Your task to perform on an android device: turn on bluetooth scan Image 0: 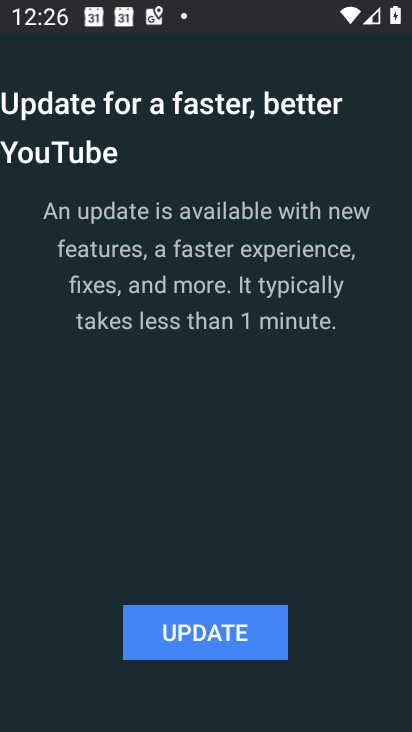
Step 0: press home button
Your task to perform on an android device: turn on bluetooth scan Image 1: 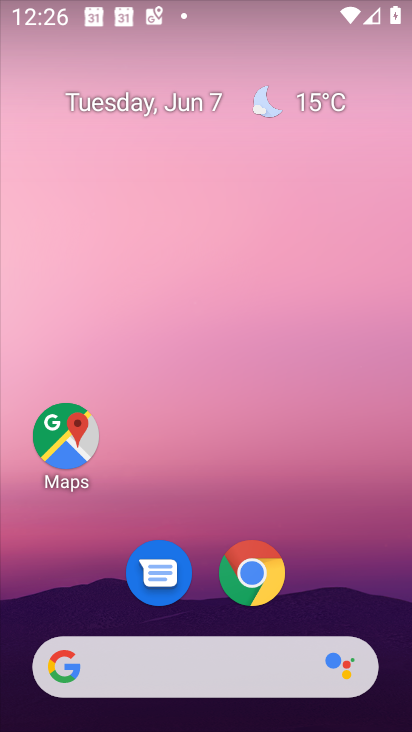
Step 1: drag from (355, 577) to (325, 128)
Your task to perform on an android device: turn on bluetooth scan Image 2: 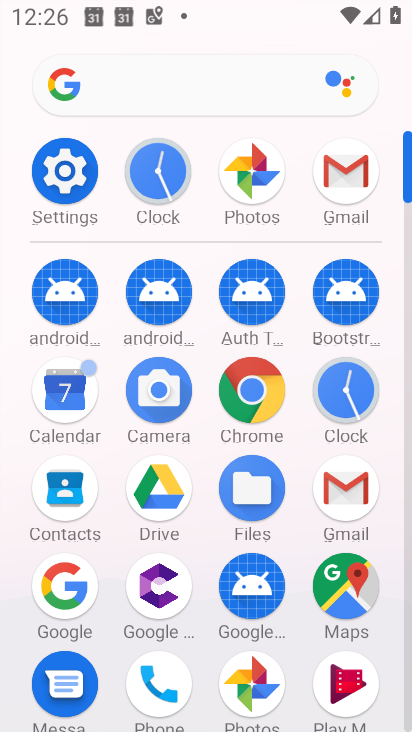
Step 2: click (74, 164)
Your task to perform on an android device: turn on bluetooth scan Image 3: 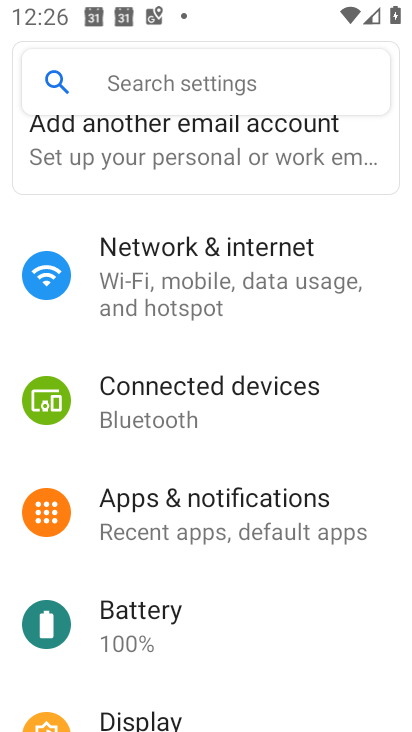
Step 3: drag from (308, 670) to (286, 226)
Your task to perform on an android device: turn on bluetooth scan Image 4: 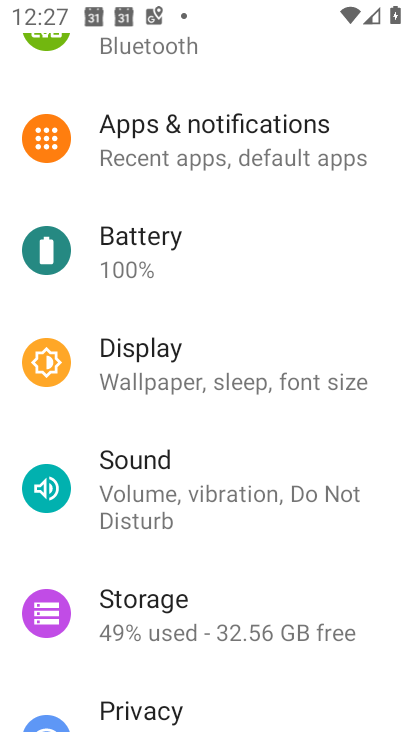
Step 4: drag from (229, 671) to (255, 250)
Your task to perform on an android device: turn on bluetooth scan Image 5: 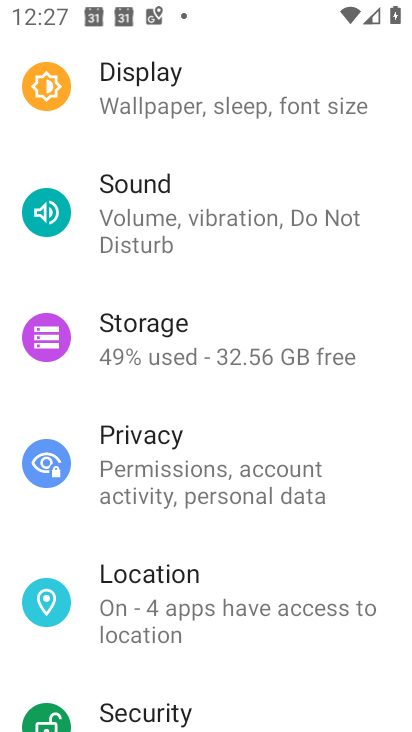
Step 5: click (223, 602)
Your task to perform on an android device: turn on bluetooth scan Image 6: 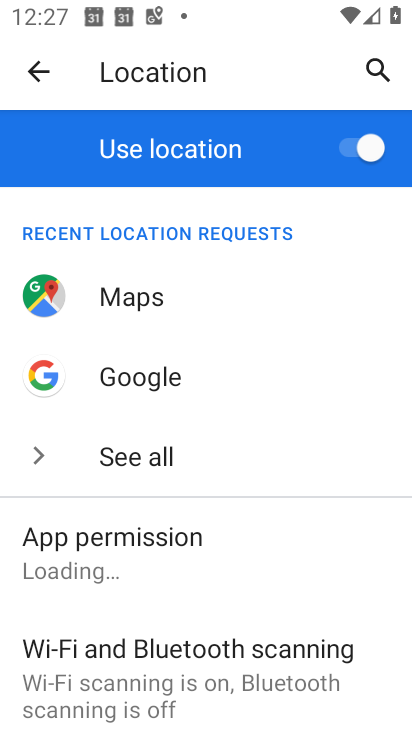
Step 6: click (216, 686)
Your task to perform on an android device: turn on bluetooth scan Image 7: 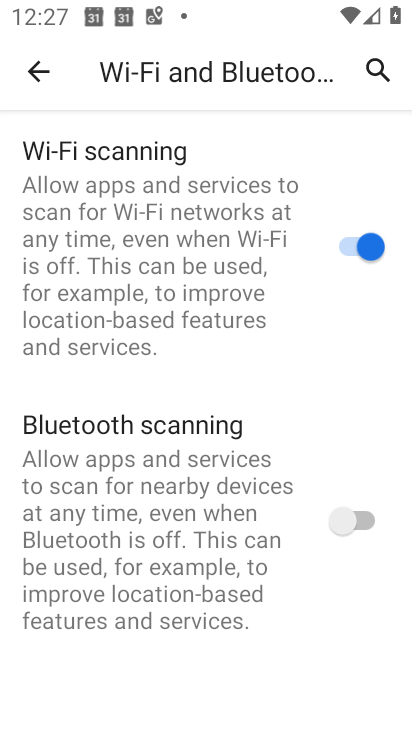
Step 7: click (378, 528)
Your task to perform on an android device: turn on bluetooth scan Image 8: 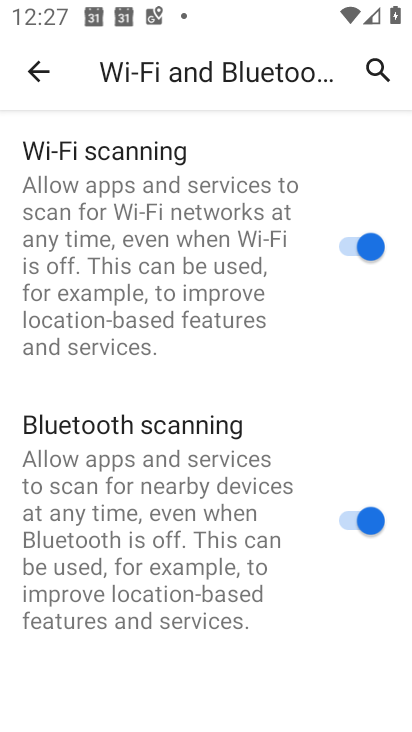
Step 8: task complete